Your task to perform on an android device: add a label to a message in the gmail app Image 0: 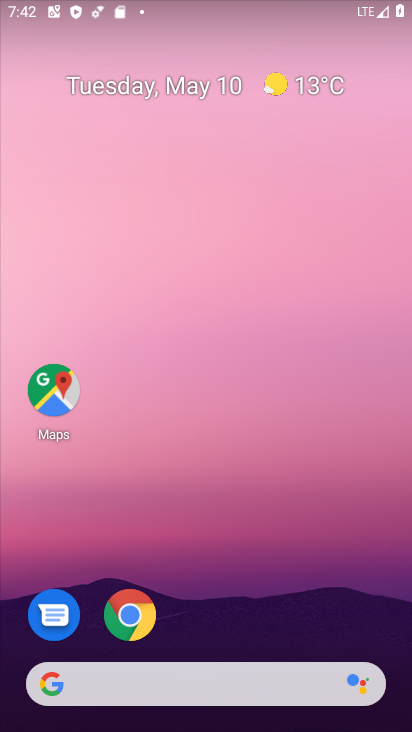
Step 0: drag from (330, 543) to (350, 33)
Your task to perform on an android device: add a label to a message in the gmail app Image 1: 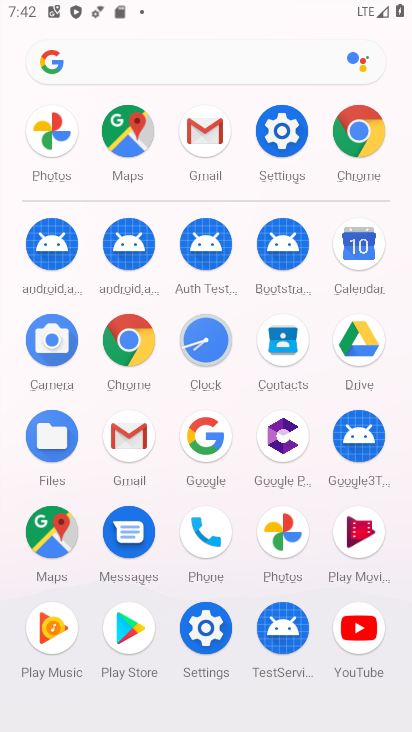
Step 1: click (193, 125)
Your task to perform on an android device: add a label to a message in the gmail app Image 2: 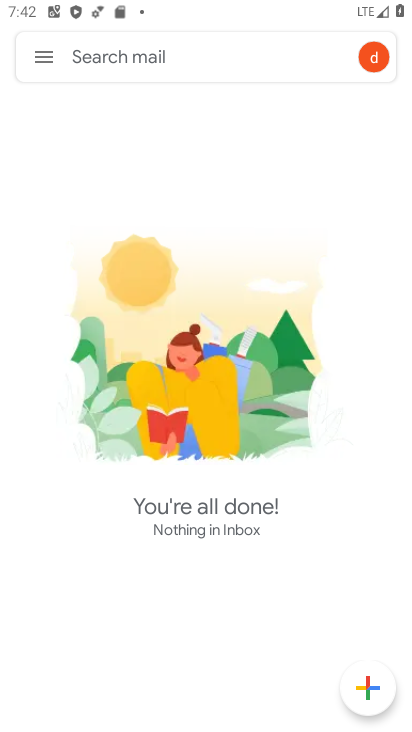
Step 2: task complete